Your task to perform on an android device: Open Reddit.com Image 0: 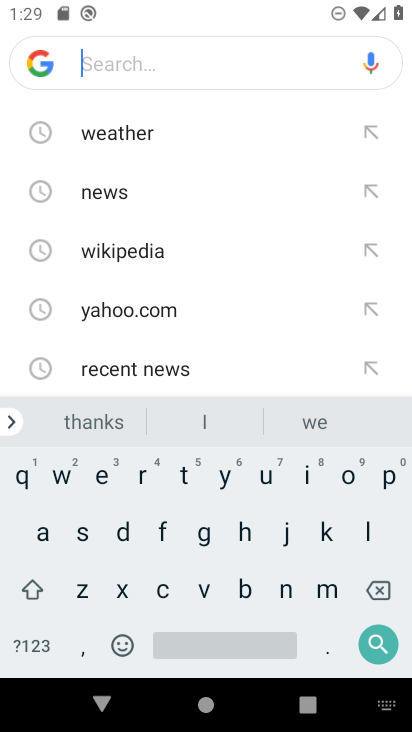
Step 0: press home button
Your task to perform on an android device: Open Reddit.com Image 1: 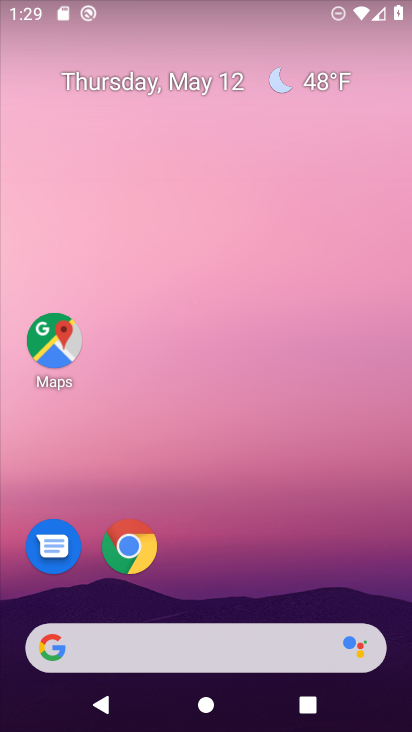
Step 1: drag from (229, 668) to (389, 232)
Your task to perform on an android device: Open Reddit.com Image 2: 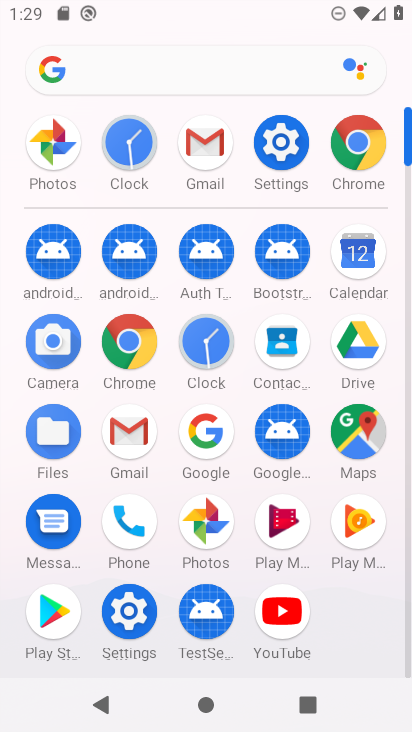
Step 2: click (343, 151)
Your task to perform on an android device: Open Reddit.com Image 3: 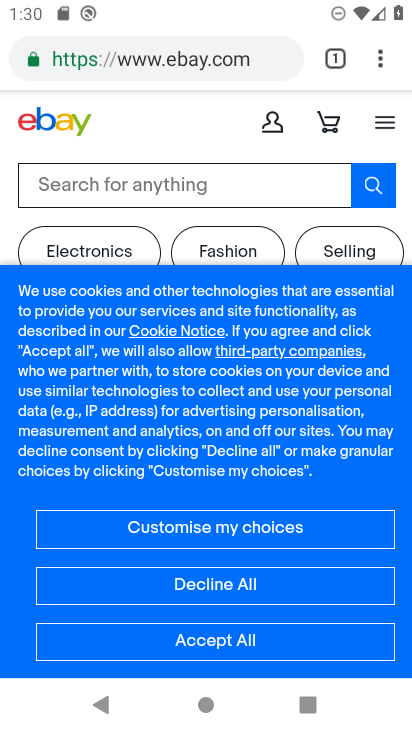
Step 3: click (155, 60)
Your task to perform on an android device: Open Reddit.com Image 4: 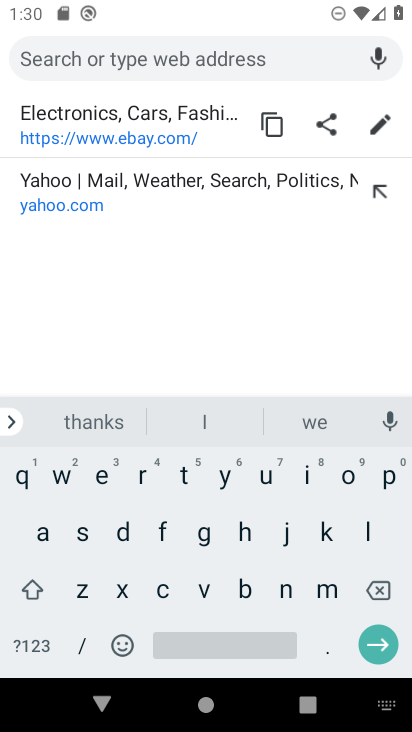
Step 4: click (138, 483)
Your task to perform on an android device: Open Reddit.com Image 5: 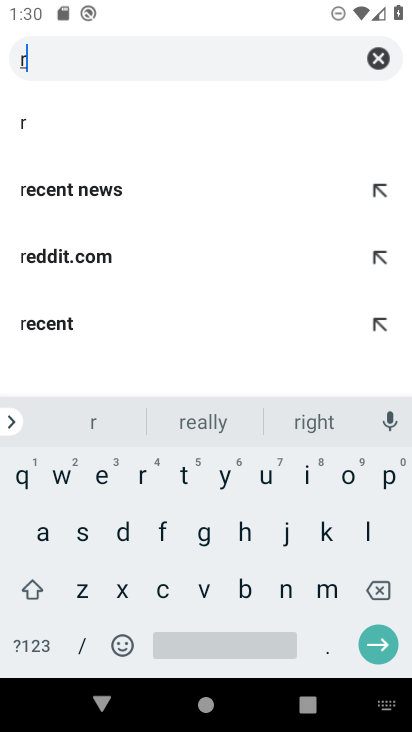
Step 5: click (97, 478)
Your task to perform on an android device: Open Reddit.com Image 6: 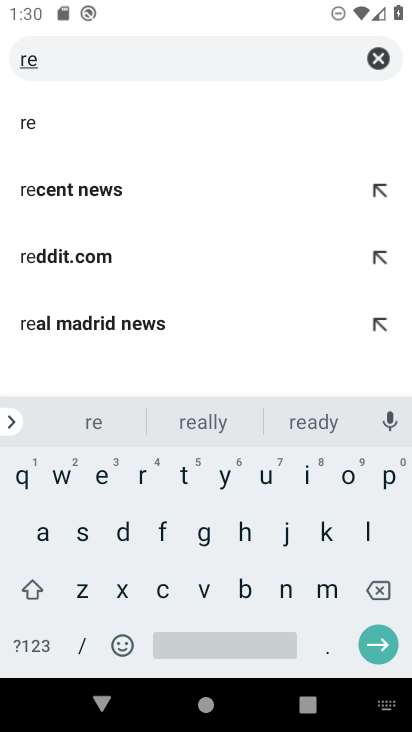
Step 6: click (72, 262)
Your task to perform on an android device: Open Reddit.com Image 7: 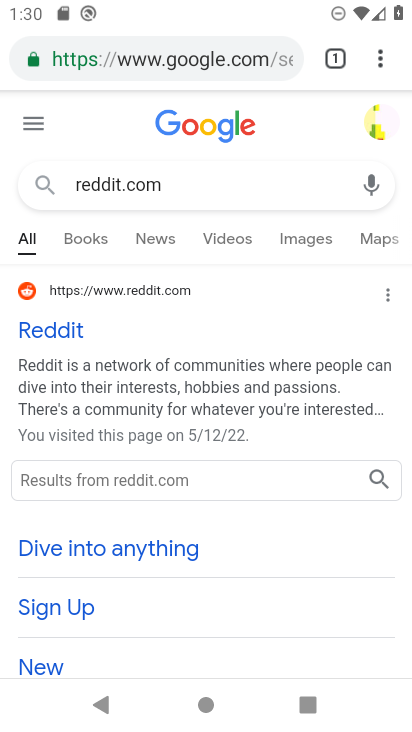
Step 7: click (32, 353)
Your task to perform on an android device: Open Reddit.com Image 8: 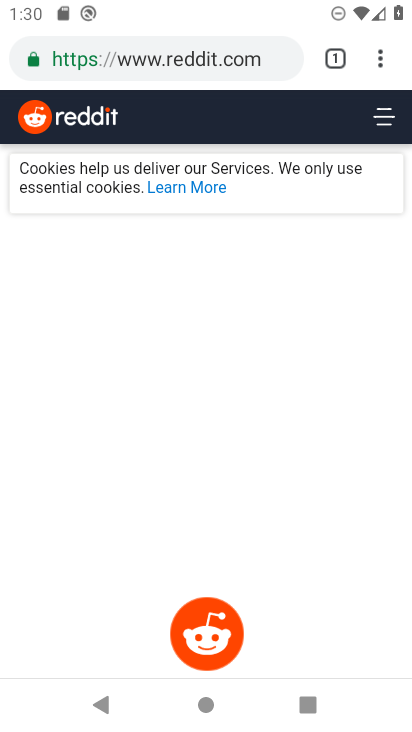
Step 8: task complete